Your task to perform on an android device: Go to privacy settings Image 0: 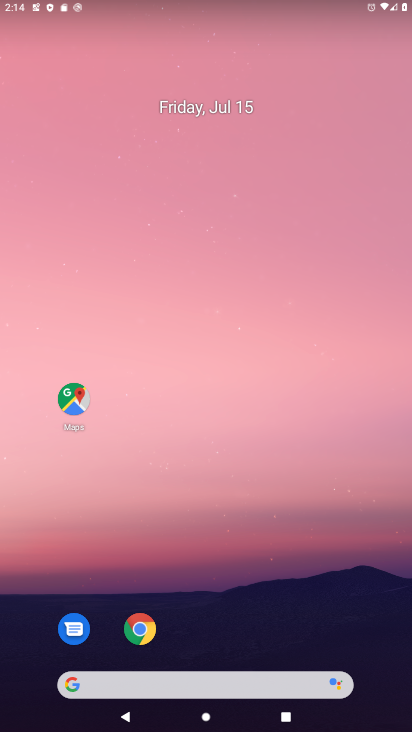
Step 0: drag from (335, 634) to (241, 233)
Your task to perform on an android device: Go to privacy settings Image 1: 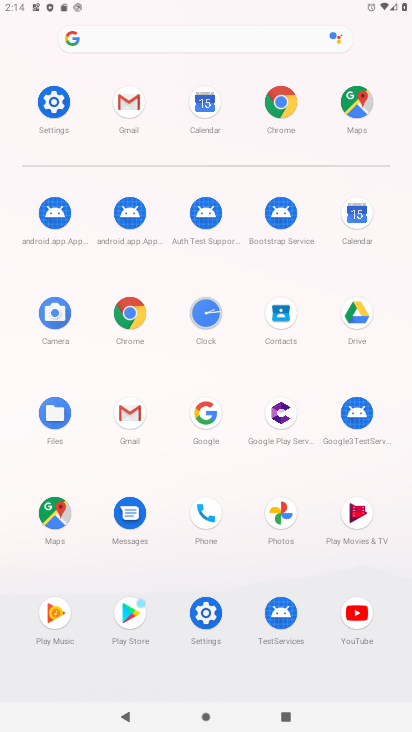
Step 1: click (45, 98)
Your task to perform on an android device: Go to privacy settings Image 2: 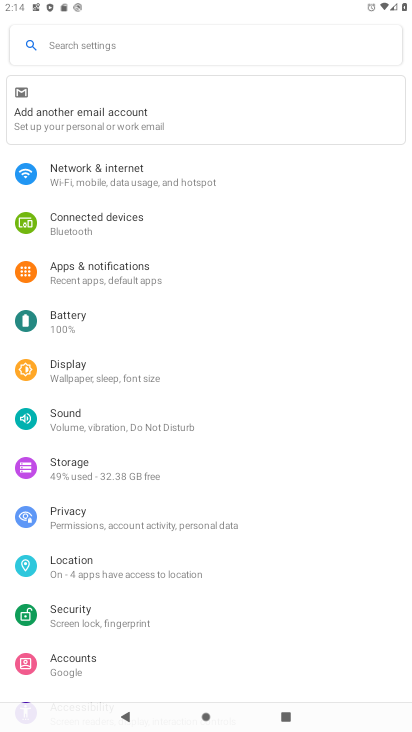
Step 2: drag from (238, 609) to (253, 391)
Your task to perform on an android device: Go to privacy settings Image 3: 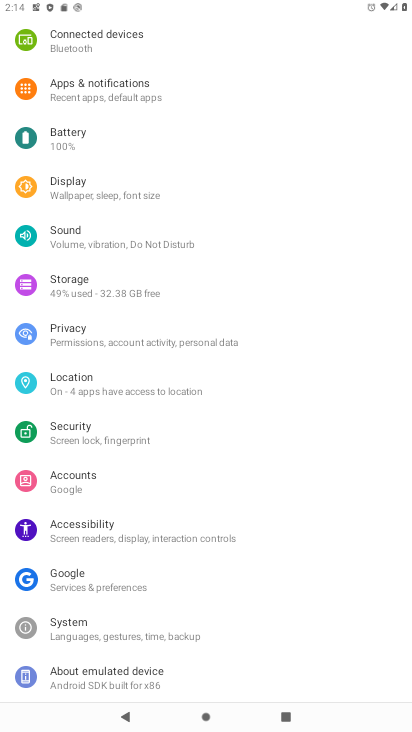
Step 3: click (141, 335)
Your task to perform on an android device: Go to privacy settings Image 4: 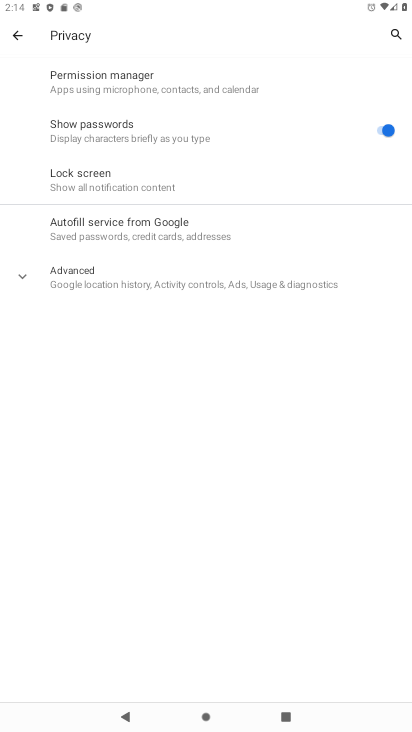
Step 4: click (224, 292)
Your task to perform on an android device: Go to privacy settings Image 5: 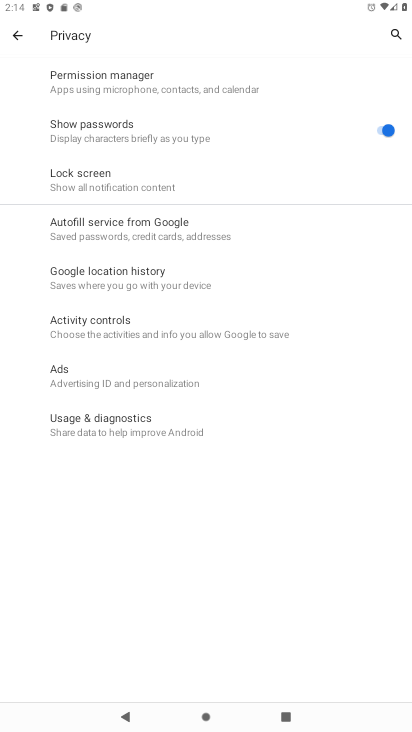
Step 5: task complete